Your task to perform on an android device: set the stopwatch Image 0: 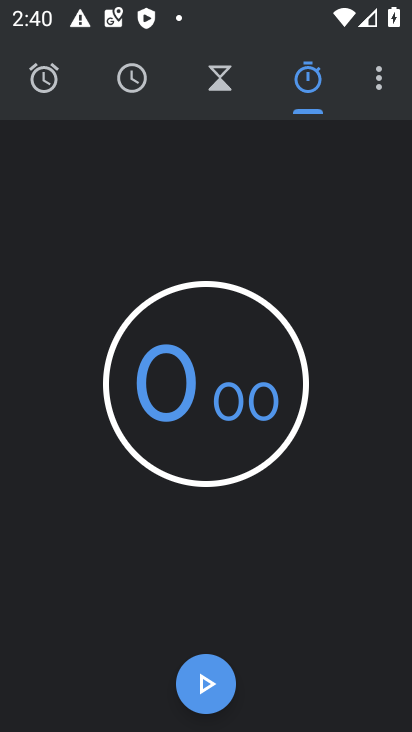
Step 0: press home button
Your task to perform on an android device: set the stopwatch Image 1: 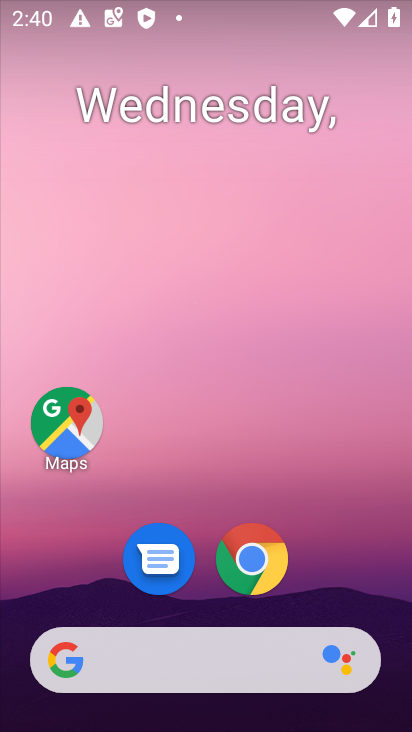
Step 1: drag from (205, 467) to (203, 65)
Your task to perform on an android device: set the stopwatch Image 2: 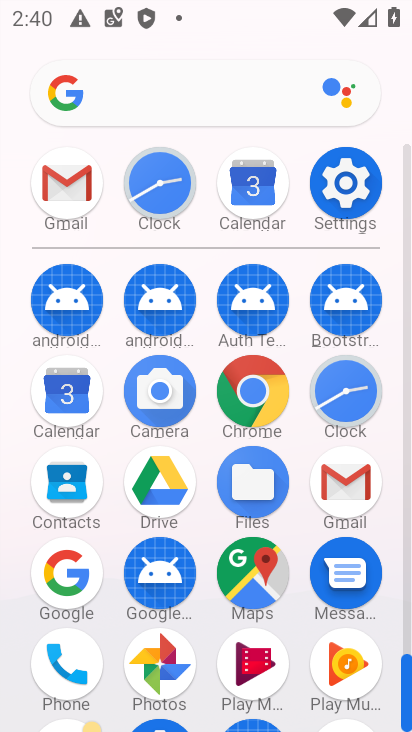
Step 2: click (343, 375)
Your task to perform on an android device: set the stopwatch Image 3: 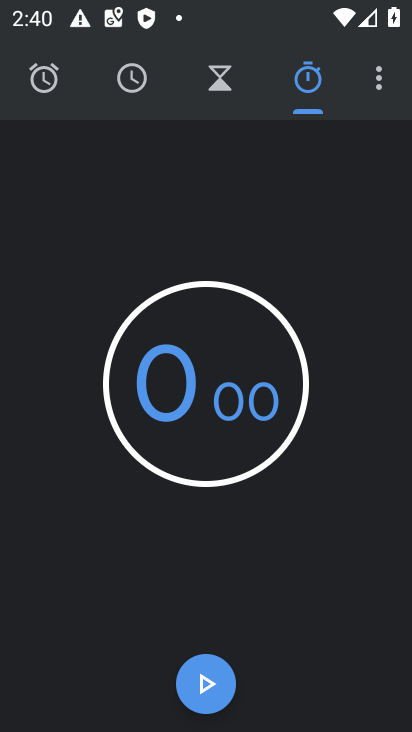
Step 3: task complete